Your task to perform on an android device: Search for sushi restaurants on Maps Image 0: 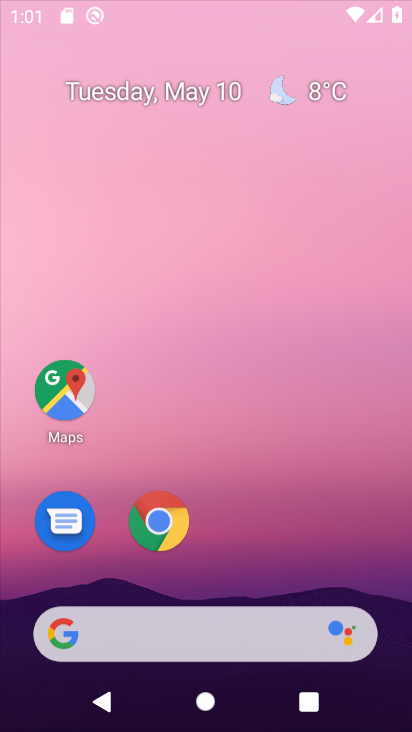
Step 0: click (267, 35)
Your task to perform on an android device: Search for sushi restaurants on Maps Image 1: 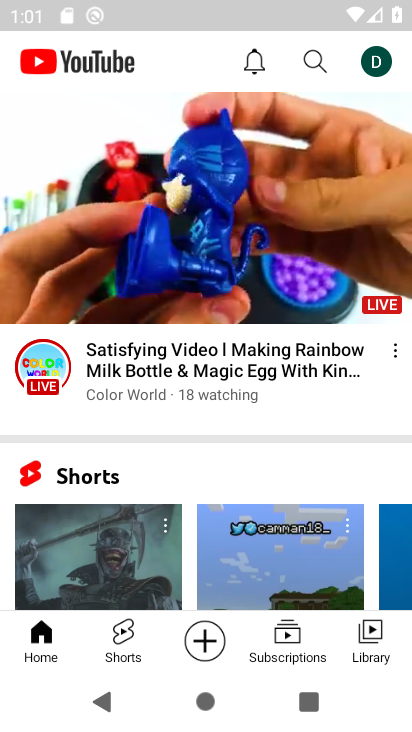
Step 1: press home button
Your task to perform on an android device: Search for sushi restaurants on Maps Image 2: 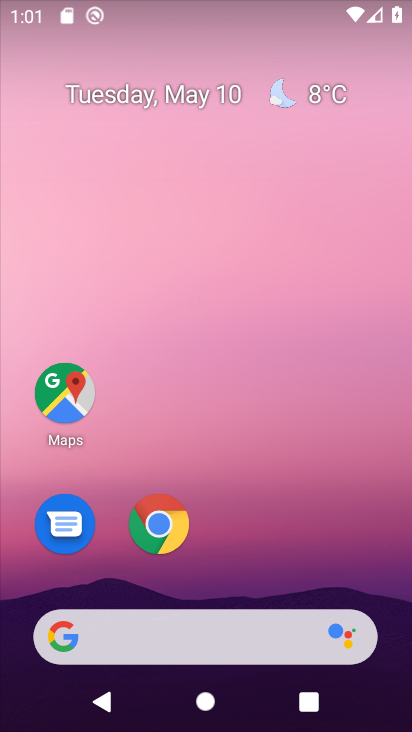
Step 2: click (64, 402)
Your task to perform on an android device: Search for sushi restaurants on Maps Image 3: 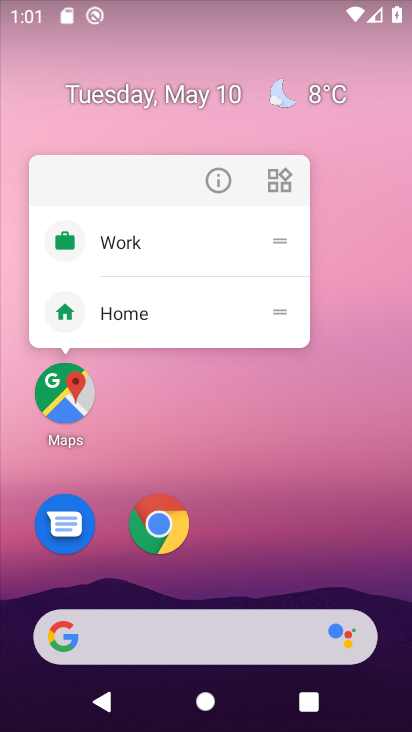
Step 3: click (64, 404)
Your task to perform on an android device: Search for sushi restaurants on Maps Image 4: 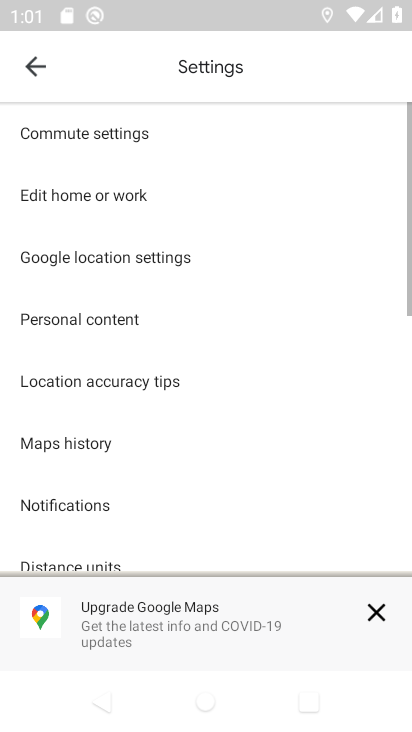
Step 4: click (41, 60)
Your task to perform on an android device: Search for sushi restaurants on Maps Image 5: 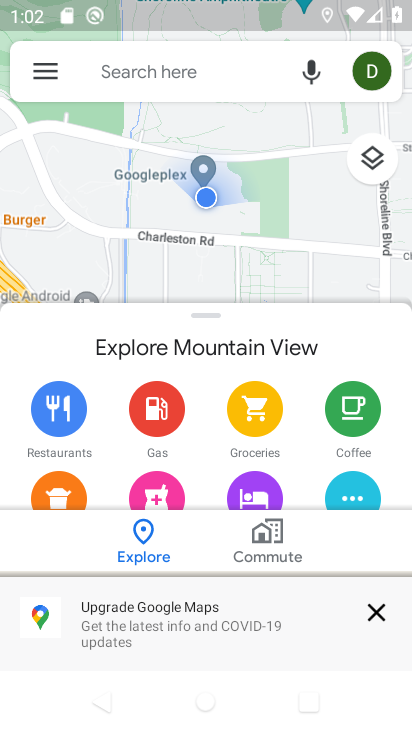
Step 5: click (124, 72)
Your task to perform on an android device: Search for sushi restaurants on Maps Image 6: 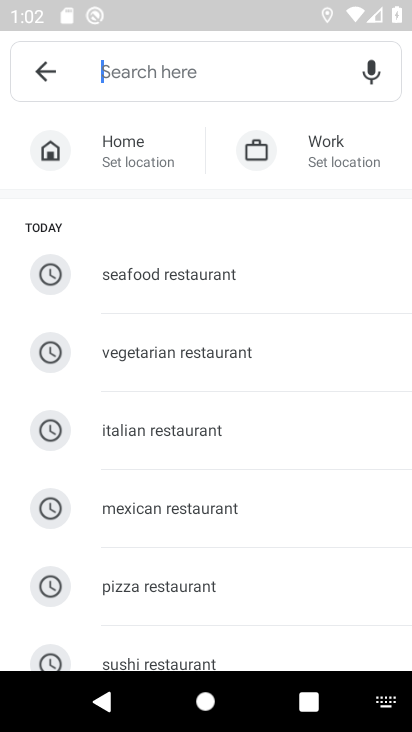
Step 6: click (241, 651)
Your task to perform on an android device: Search for sushi restaurants on Maps Image 7: 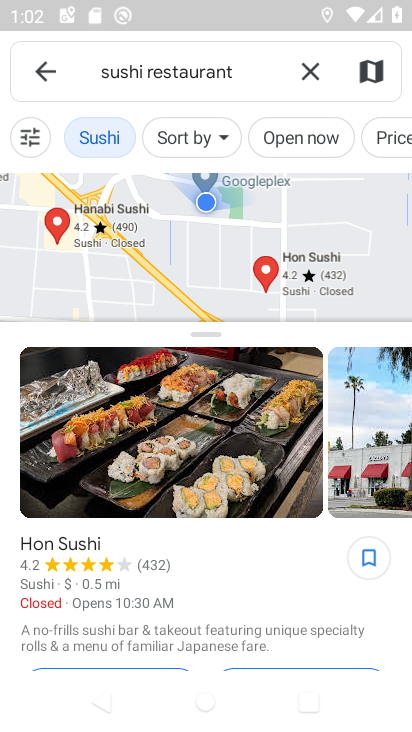
Step 7: task complete